Your task to perform on an android device: search for starred emails in the gmail app Image 0: 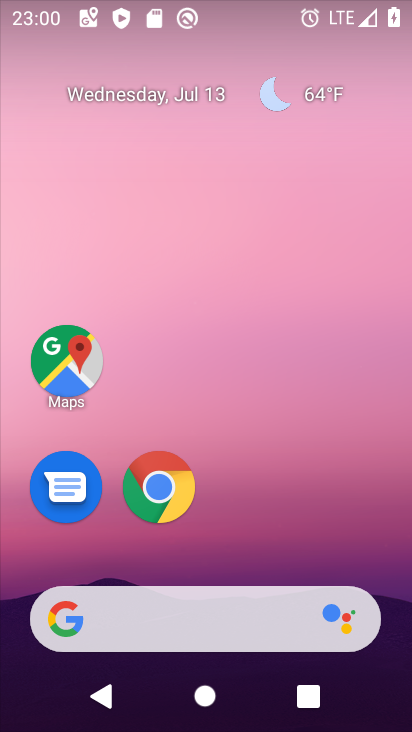
Step 0: drag from (227, 542) to (338, 0)
Your task to perform on an android device: search for starred emails in the gmail app Image 1: 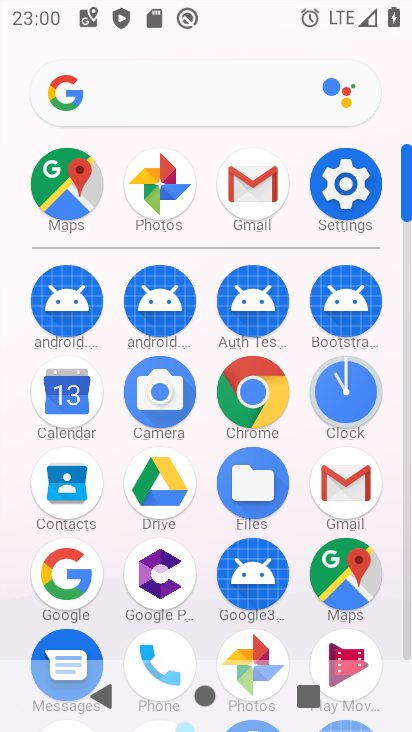
Step 1: click (245, 171)
Your task to perform on an android device: search for starred emails in the gmail app Image 2: 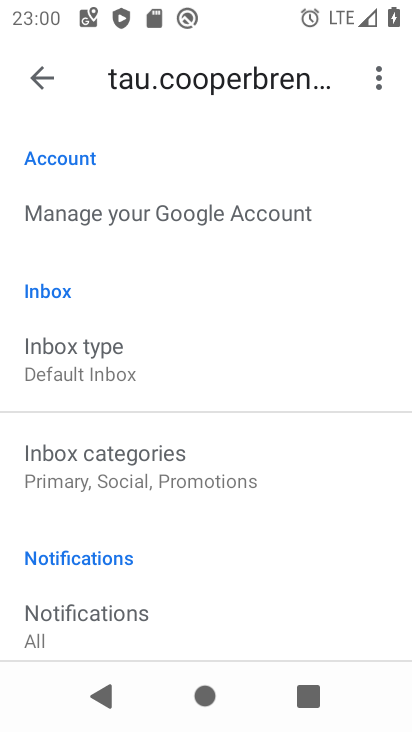
Step 2: click (40, 76)
Your task to perform on an android device: search for starred emails in the gmail app Image 3: 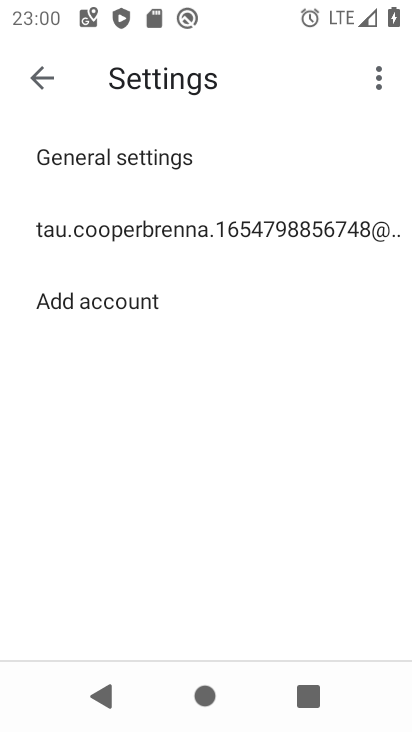
Step 3: click (45, 74)
Your task to perform on an android device: search for starred emails in the gmail app Image 4: 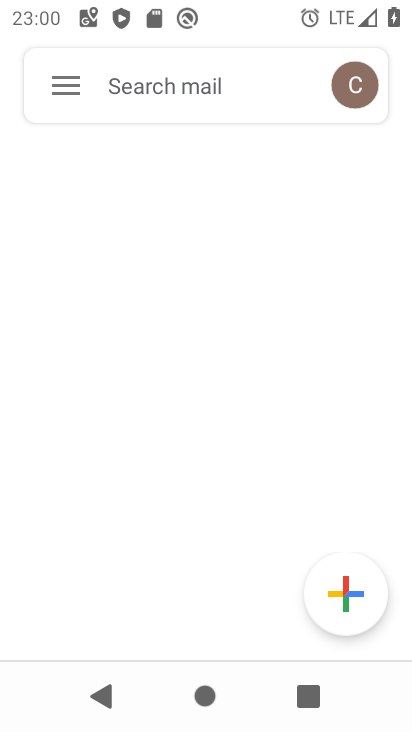
Step 4: click (54, 73)
Your task to perform on an android device: search for starred emails in the gmail app Image 5: 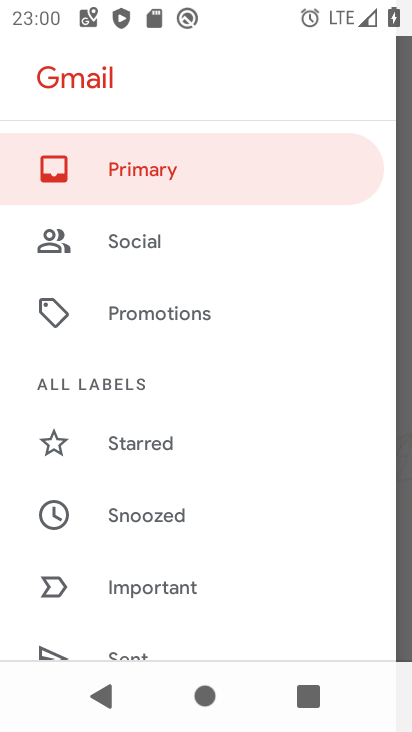
Step 5: click (136, 440)
Your task to perform on an android device: search for starred emails in the gmail app Image 6: 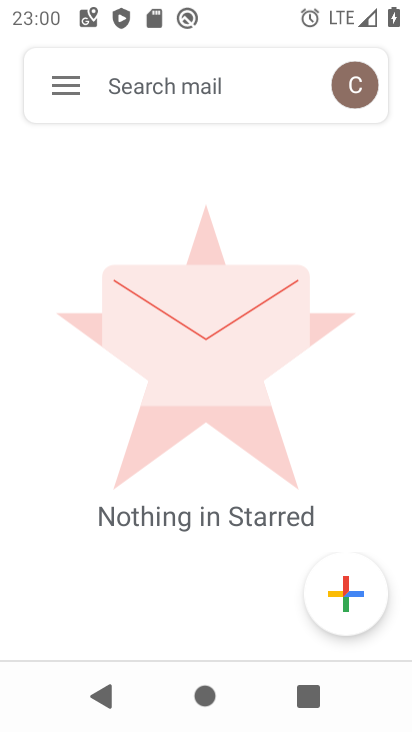
Step 6: task complete